Your task to perform on an android device: Open Reddit.com Image 0: 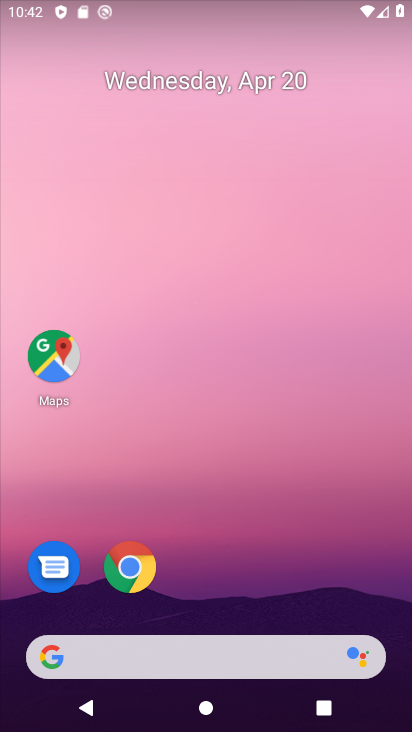
Step 0: drag from (205, 614) to (247, 109)
Your task to perform on an android device: Open Reddit.com Image 1: 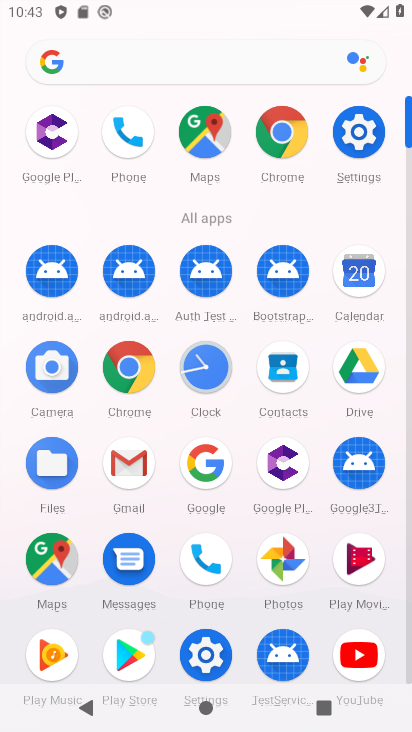
Step 1: click (136, 365)
Your task to perform on an android device: Open Reddit.com Image 2: 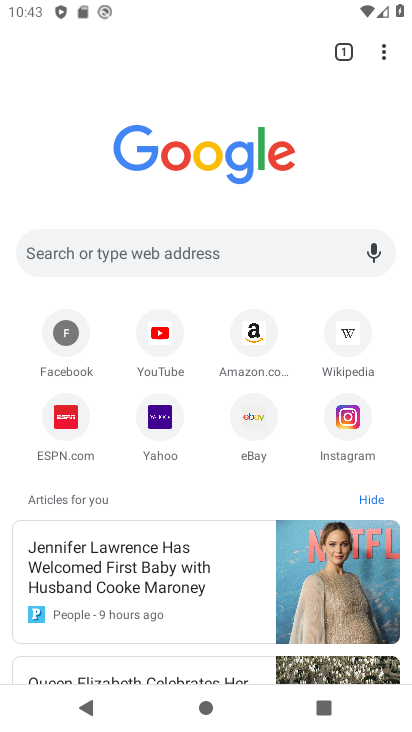
Step 2: click (185, 248)
Your task to perform on an android device: Open Reddit.com Image 3: 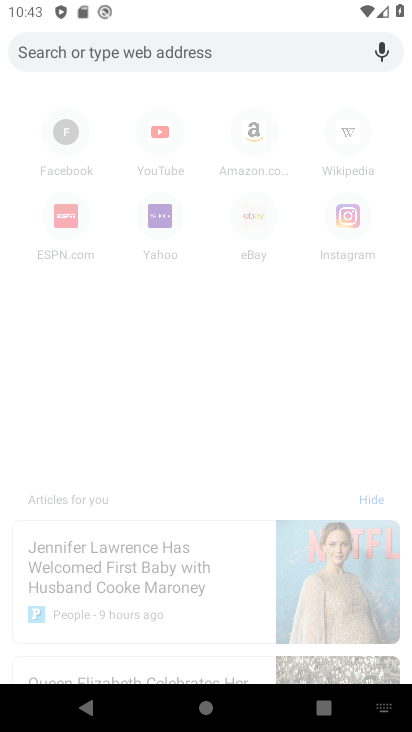
Step 3: type "reddit"
Your task to perform on an android device: Open Reddit.com Image 4: 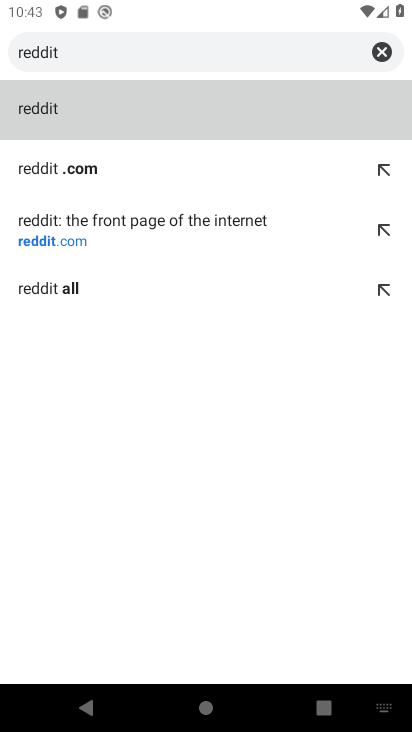
Step 4: click (80, 171)
Your task to perform on an android device: Open Reddit.com Image 5: 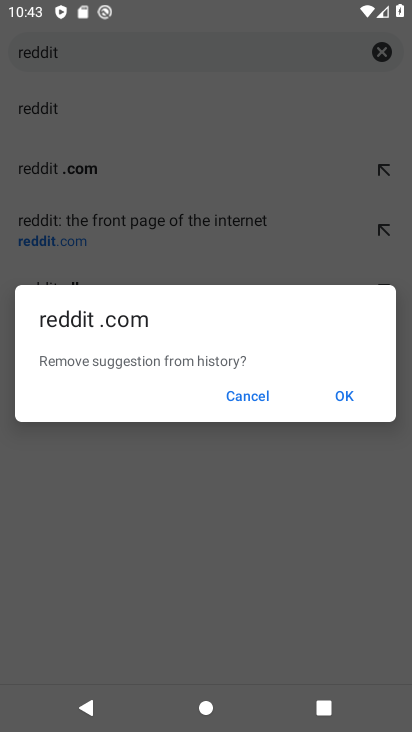
Step 5: click (340, 390)
Your task to perform on an android device: Open Reddit.com Image 6: 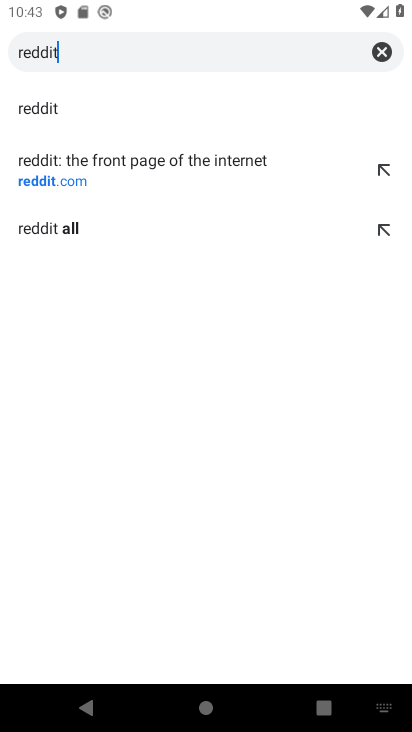
Step 6: click (80, 190)
Your task to perform on an android device: Open Reddit.com Image 7: 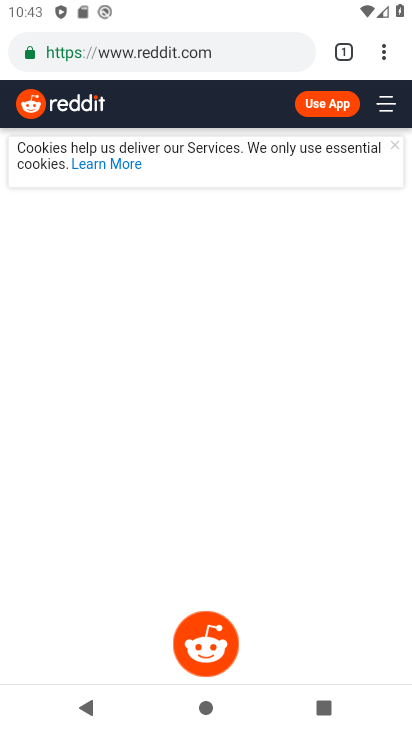
Step 7: task complete